Your task to perform on an android device: toggle sleep mode Image 0: 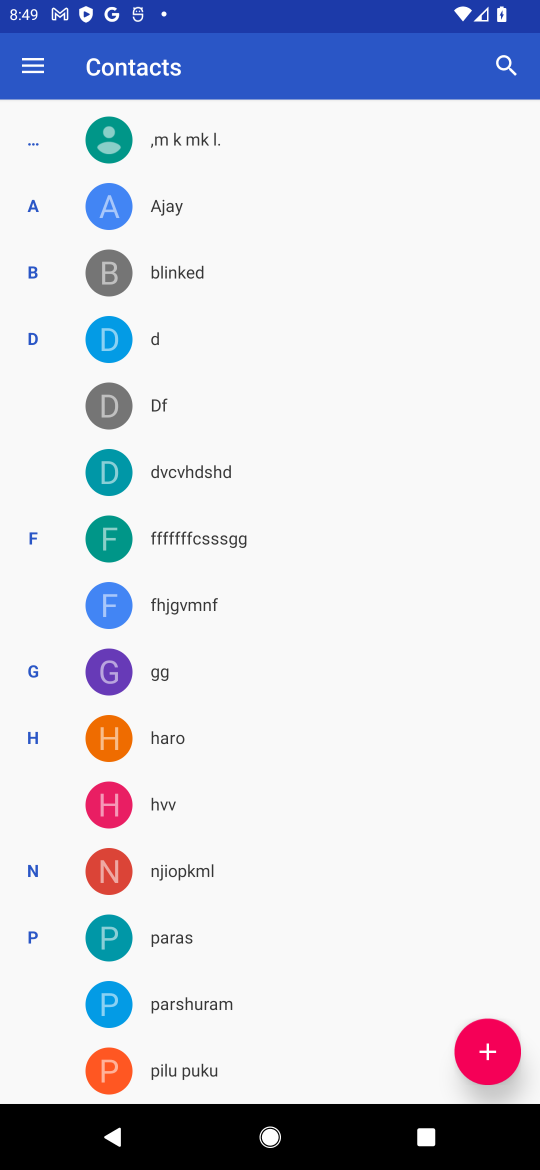
Step 0: press home button
Your task to perform on an android device: toggle sleep mode Image 1: 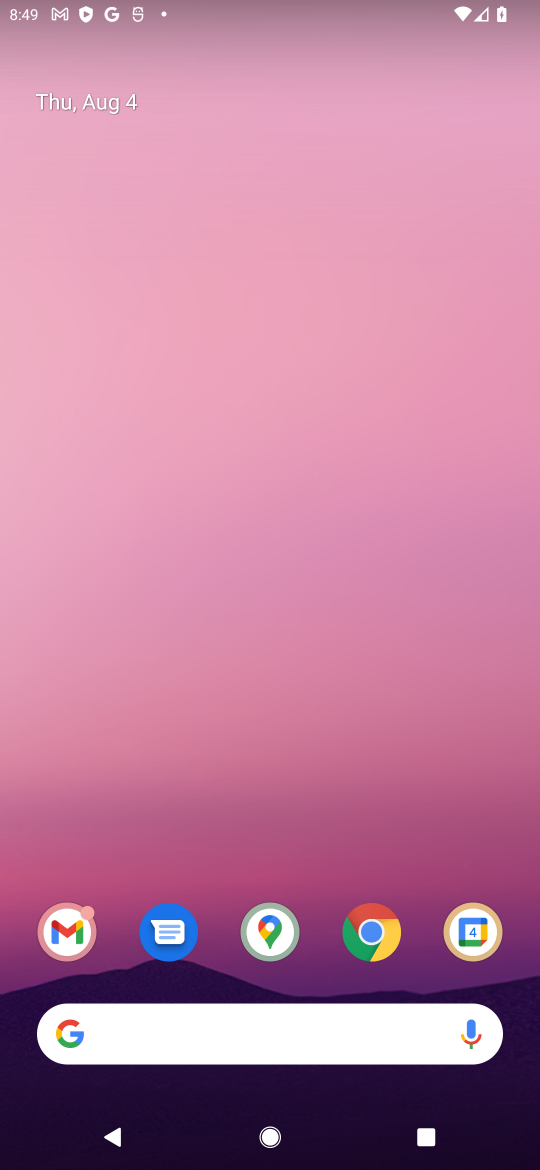
Step 1: drag from (309, 859) to (309, 212)
Your task to perform on an android device: toggle sleep mode Image 2: 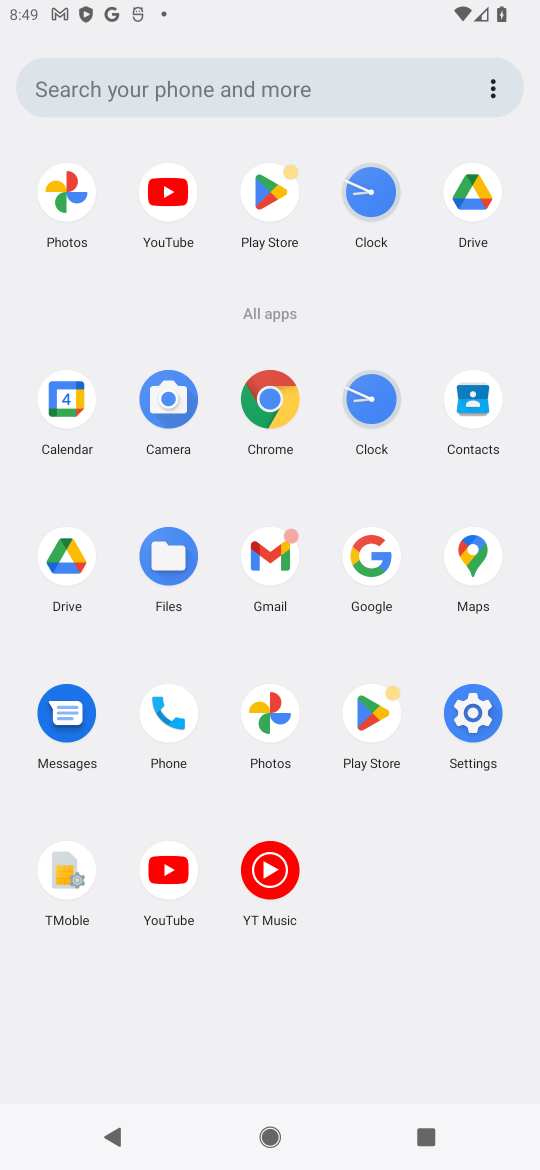
Step 2: click (469, 704)
Your task to perform on an android device: toggle sleep mode Image 3: 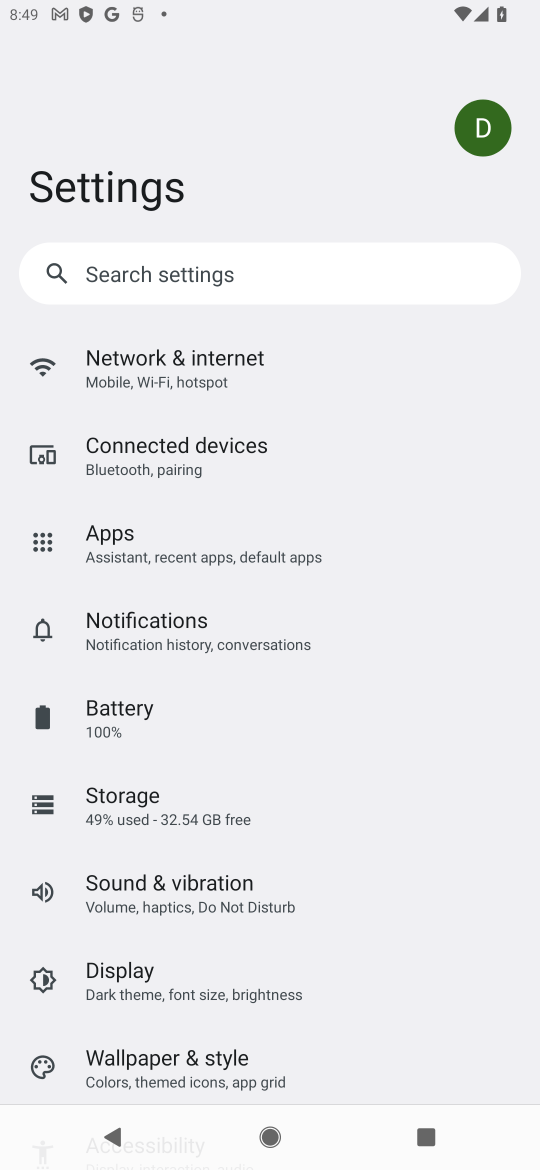
Step 3: task complete